Your task to perform on an android device: clear all cookies in the chrome app Image 0: 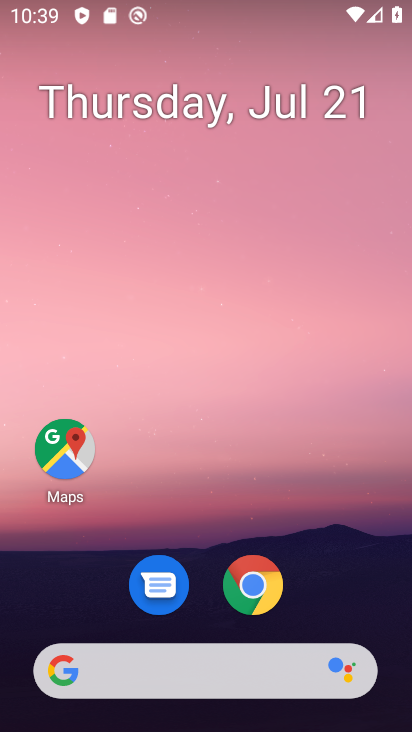
Step 0: click (249, 587)
Your task to perform on an android device: clear all cookies in the chrome app Image 1: 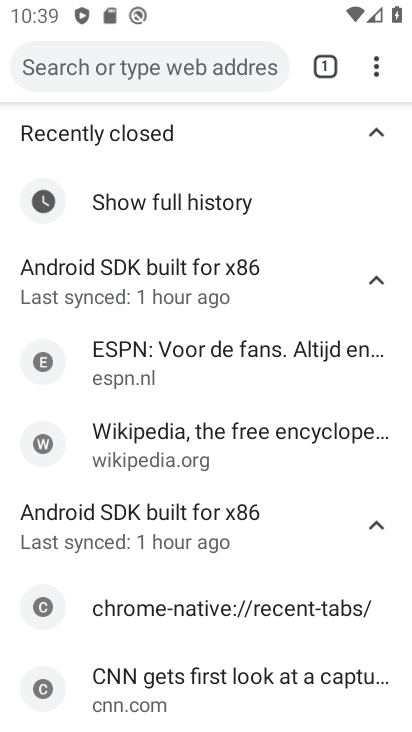
Step 1: drag from (373, 65) to (188, 565)
Your task to perform on an android device: clear all cookies in the chrome app Image 2: 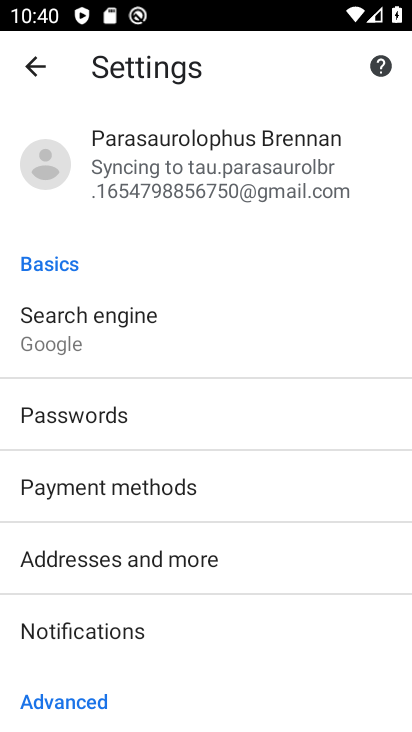
Step 2: drag from (153, 635) to (262, 201)
Your task to perform on an android device: clear all cookies in the chrome app Image 3: 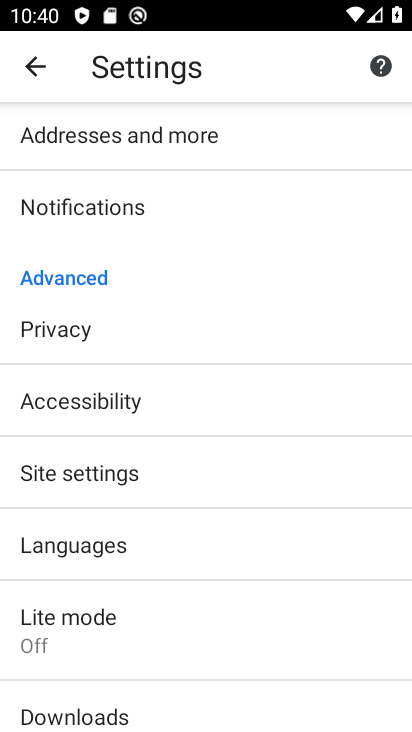
Step 3: click (69, 332)
Your task to perform on an android device: clear all cookies in the chrome app Image 4: 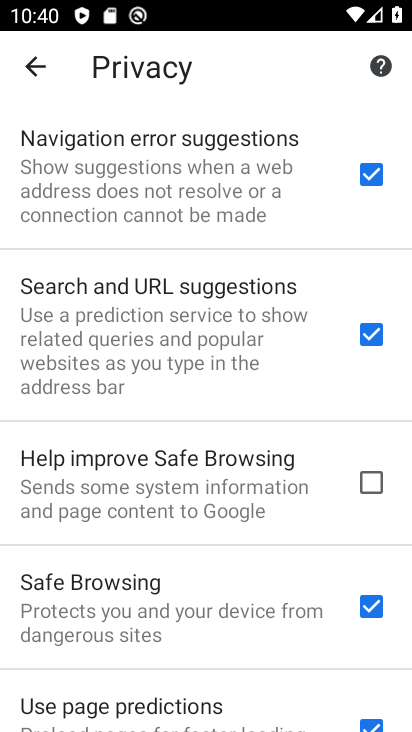
Step 4: drag from (211, 671) to (223, 245)
Your task to perform on an android device: clear all cookies in the chrome app Image 5: 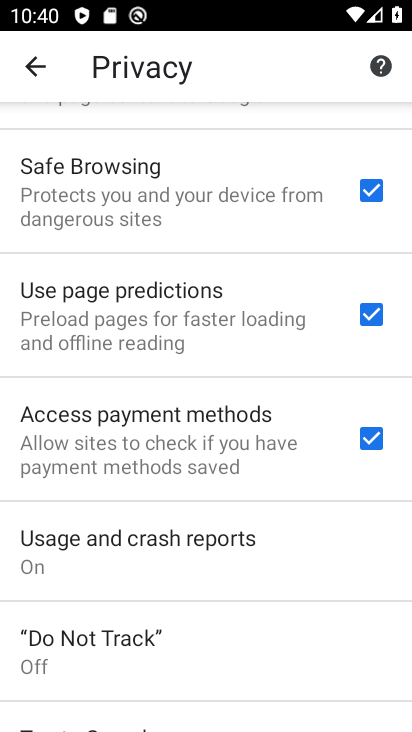
Step 5: drag from (205, 626) to (224, 257)
Your task to perform on an android device: clear all cookies in the chrome app Image 6: 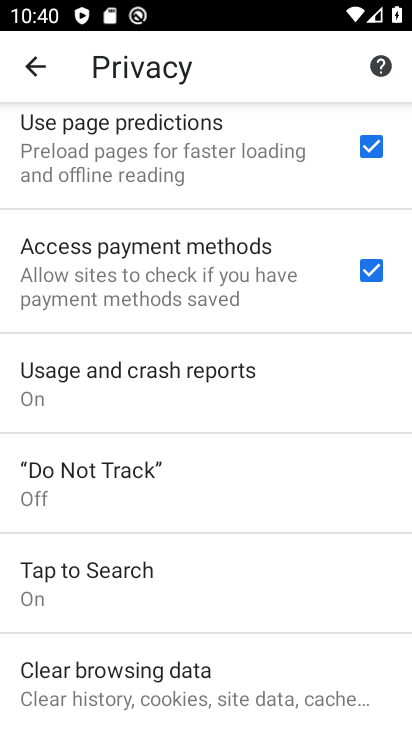
Step 6: click (131, 673)
Your task to perform on an android device: clear all cookies in the chrome app Image 7: 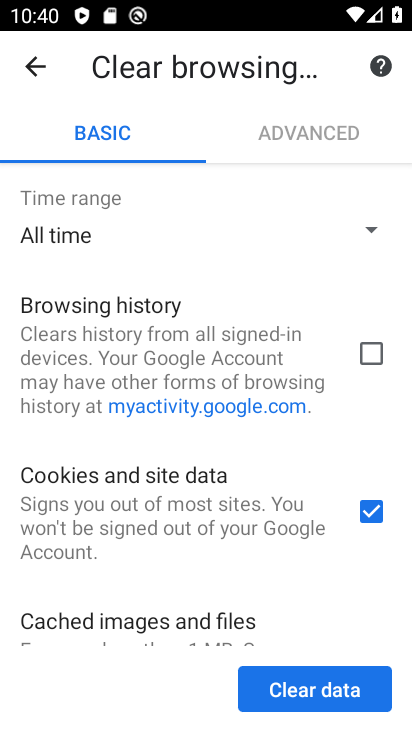
Step 7: click (299, 674)
Your task to perform on an android device: clear all cookies in the chrome app Image 8: 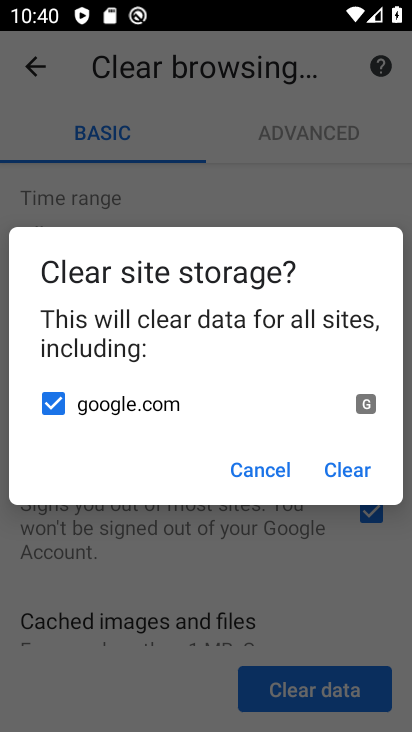
Step 8: click (352, 471)
Your task to perform on an android device: clear all cookies in the chrome app Image 9: 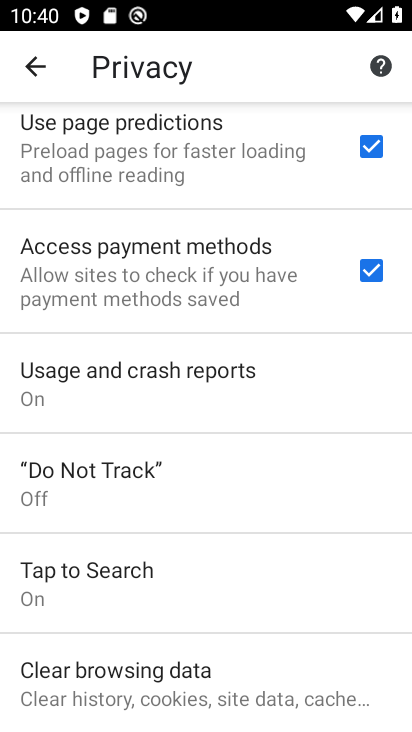
Step 9: task complete